Your task to perform on an android device: check google app version Image 0: 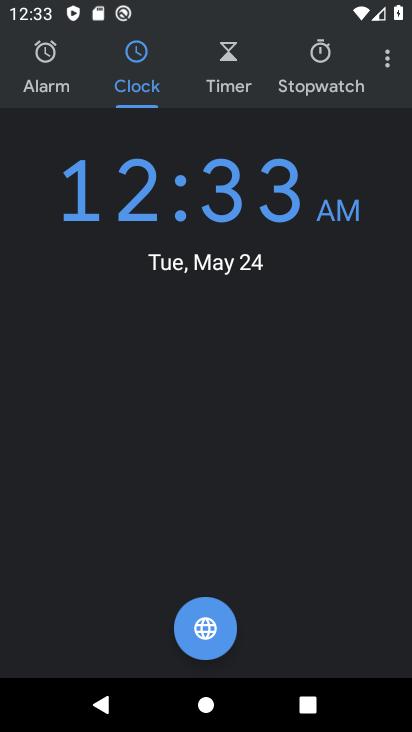
Step 0: press home button
Your task to perform on an android device: check google app version Image 1: 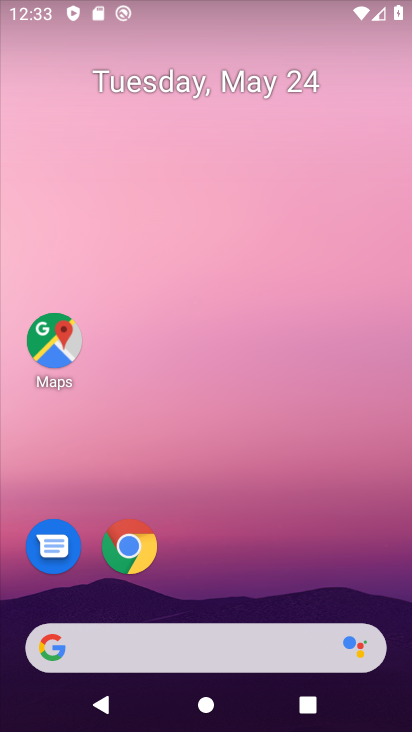
Step 1: drag from (278, 572) to (257, 137)
Your task to perform on an android device: check google app version Image 2: 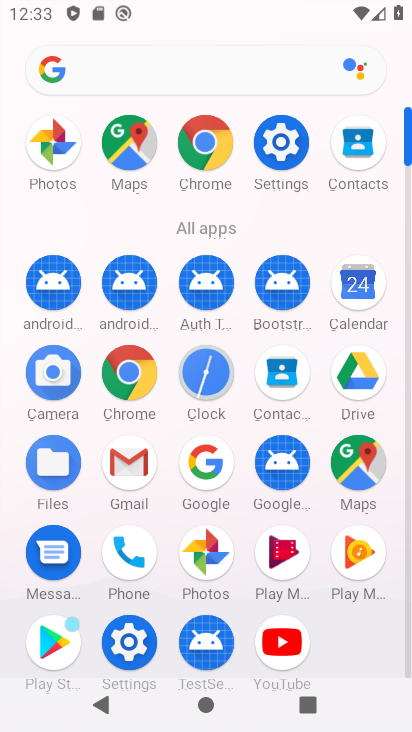
Step 2: click (214, 463)
Your task to perform on an android device: check google app version Image 3: 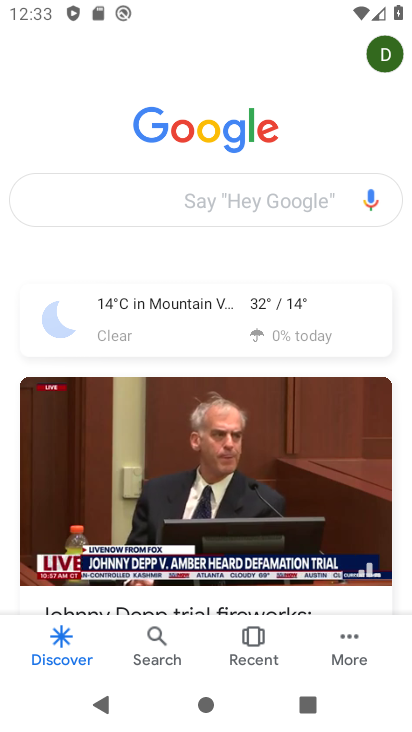
Step 3: click (362, 638)
Your task to perform on an android device: check google app version Image 4: 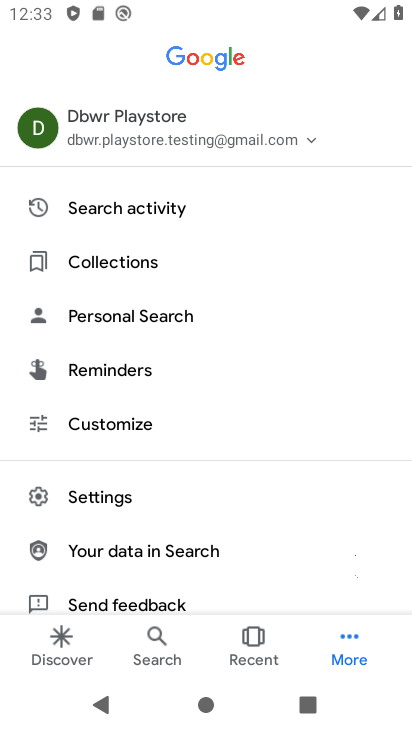
Step 4: click (129, 492)
Your task to perform on an android device: check google app version Image 5: 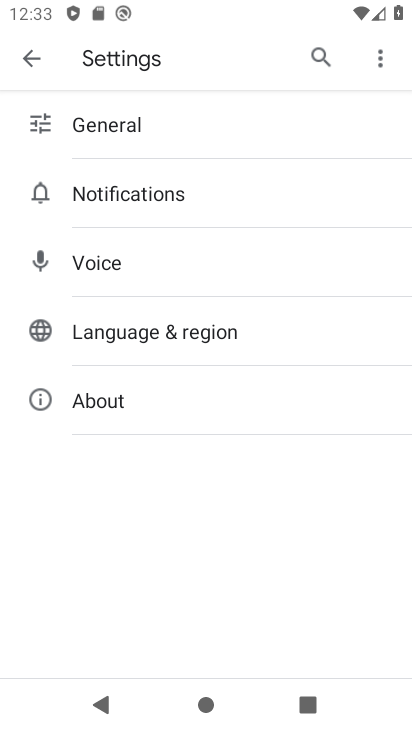
Step 5: click (180, 412)
Your task to perform on an android device: check google app version Image 6: 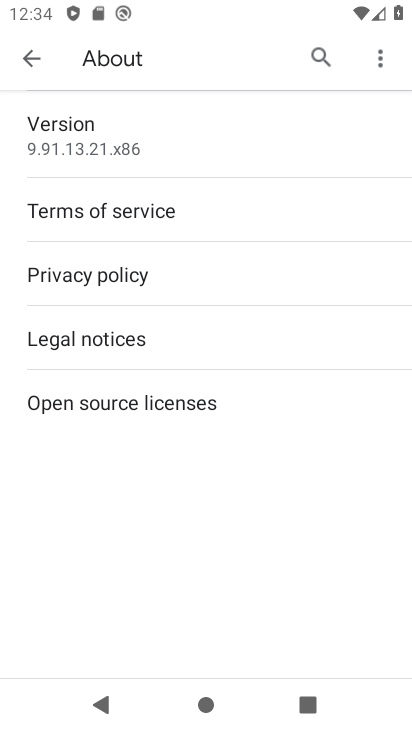
Step 6: click (134, 128)
Your task to perform on an android device: check google app version Image 7: 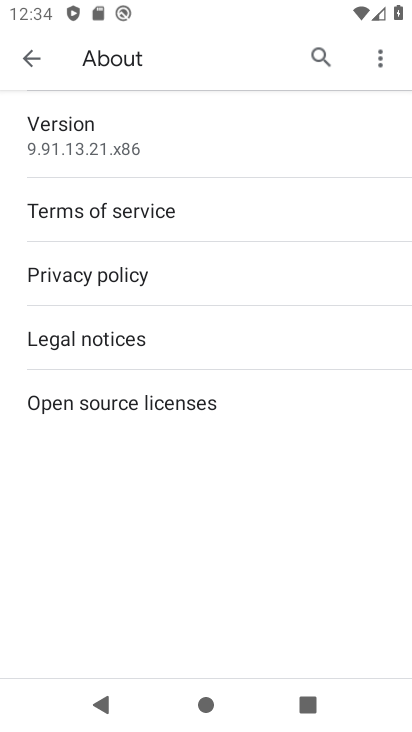
Step 7: task complete